Your task to perform on an android device: check the backup settings in the google photos Image 0: 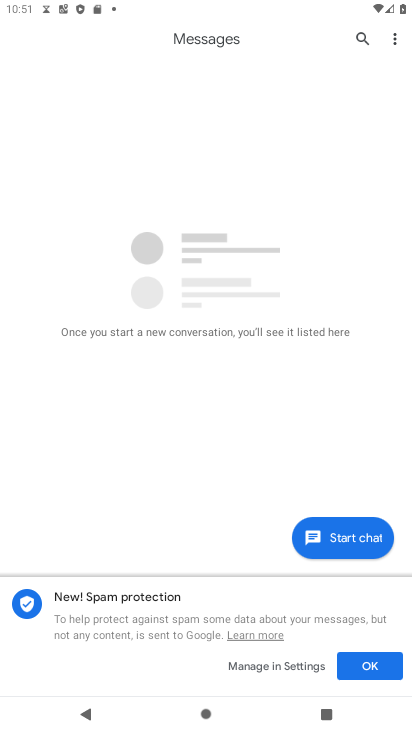
Step 0: press home button
Your task to perform on an android device: check the backup settings in the google photos Image 1: 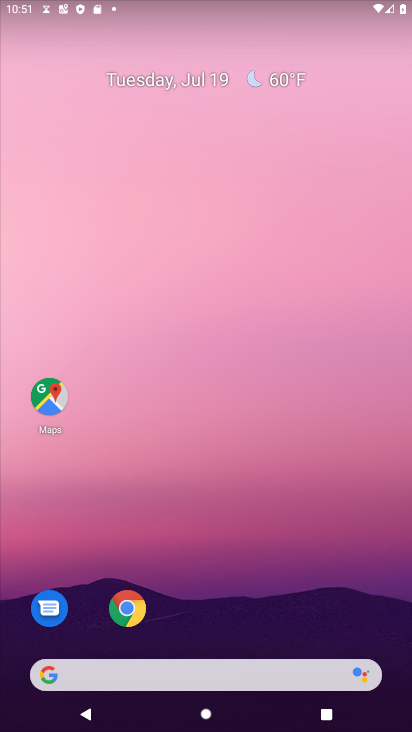
Step 1: drag from (258, 611) to (339, 172)
Your task to perform on an android device: check the backup settings in the google photos Image 2: 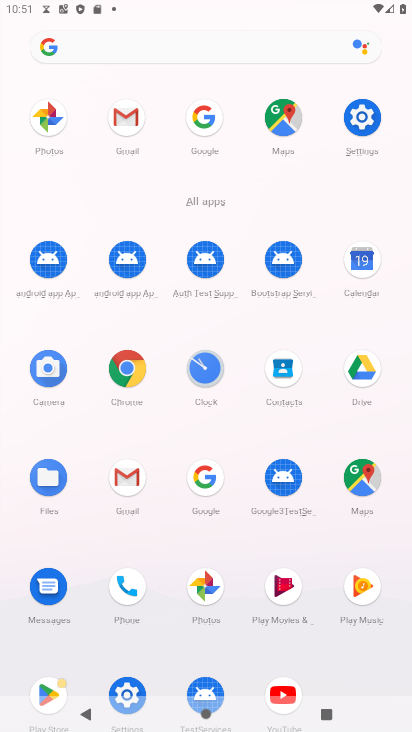
Step 2: click (216, 576)
Your task to perform on an android device: check the backup settings in the google photos Image 3: 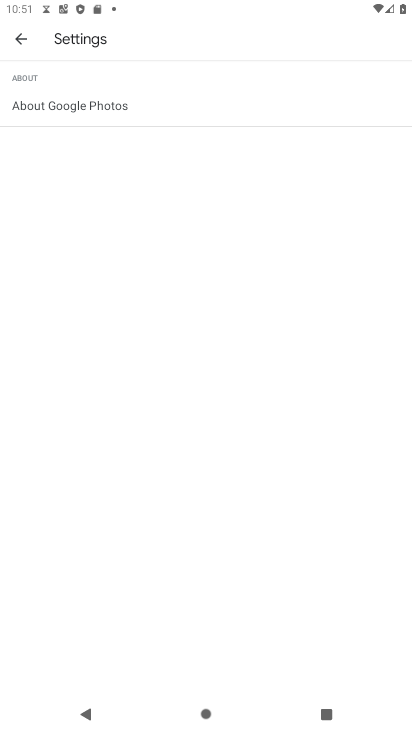
Step 3: click (20, 30)
Your task to perform on an android device: check the backup settings in the google photos Image 4: 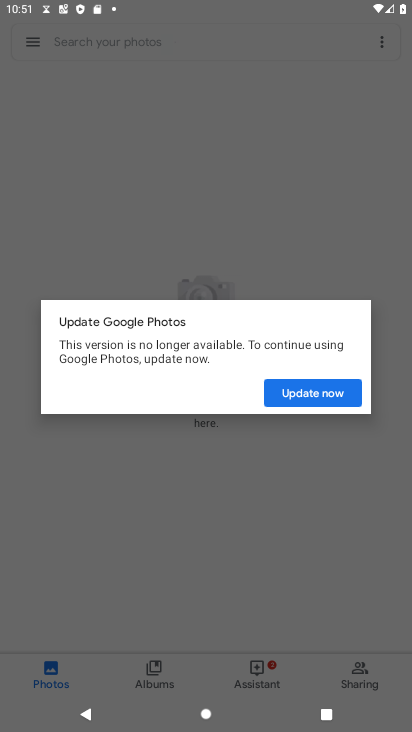
Step 4: click (318, 399)
Your task to perform on an android device: check the backup settings in the google photos Image 5: 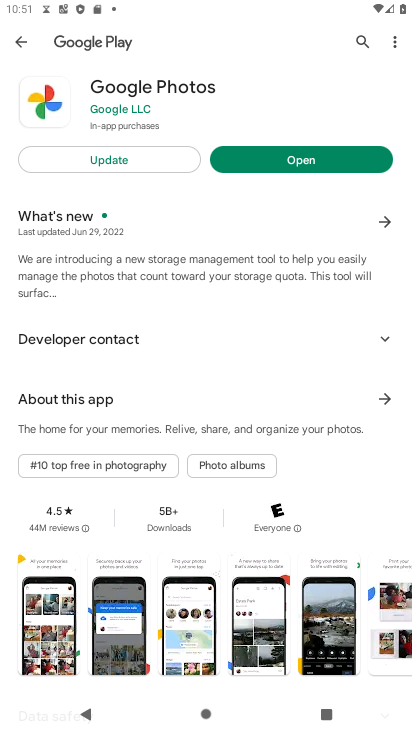
Step 5: click (127, 155)
Your task to perform on an android device: check the backup settings in the google photos Image 6: 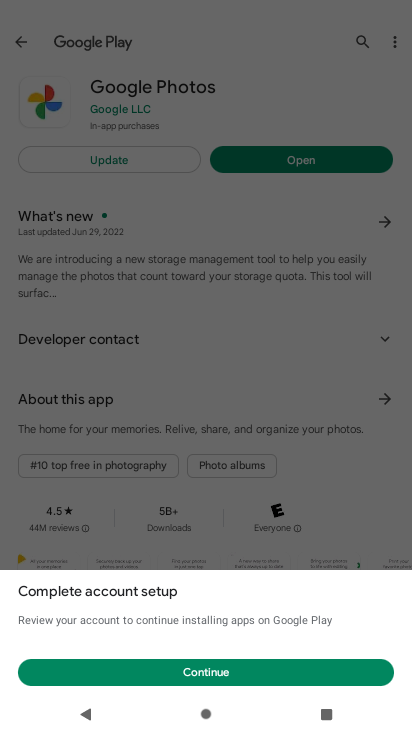
Step 6: click (130, 678)
Your task to perform on an android device: check the backup settings in the google photos Image 7: 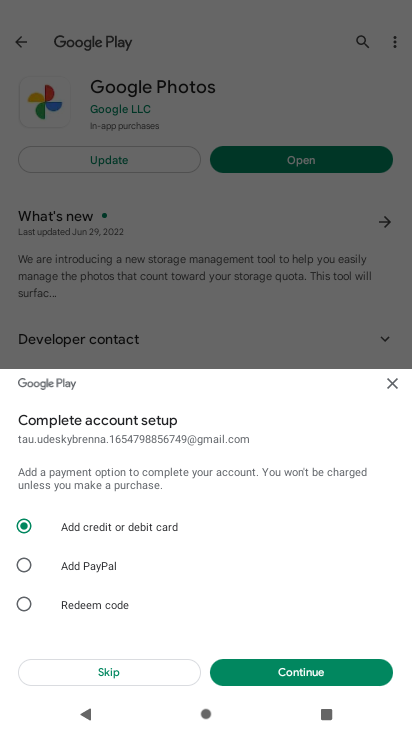
Step 7: click (119, 667)
Your task to perform on an android device: check the backup settings in the google photos Image 8: 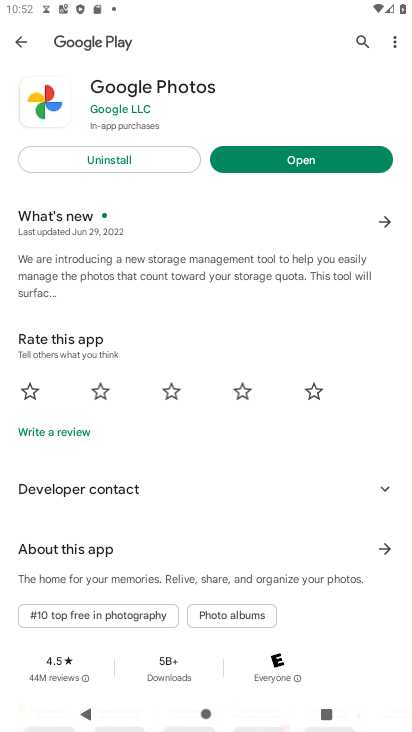
Step 8: click (256, 151)
Your task to perform on an android device: check the backup settings in the google photos Image 9: 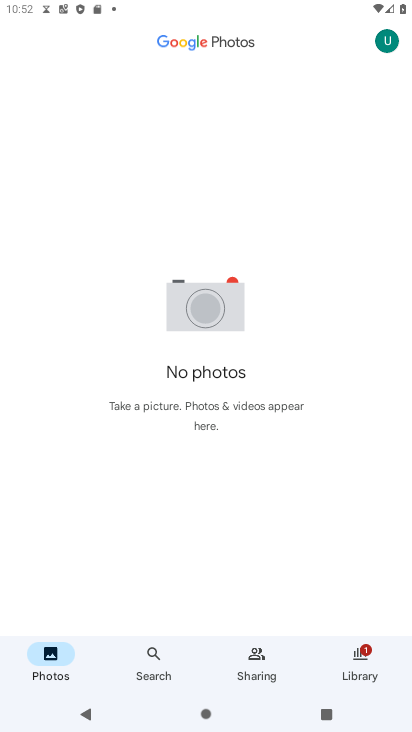
Step 9: click (384, 42)
Your task to perform on an android device: check the backup settings in the google photos Image 10: 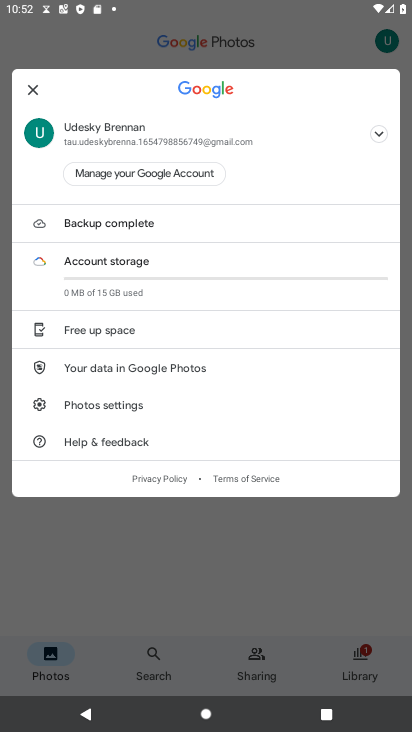
Step 10: click (114, 412)
Your task to perform on an android device: check the backup settings in the google photos Image 11: 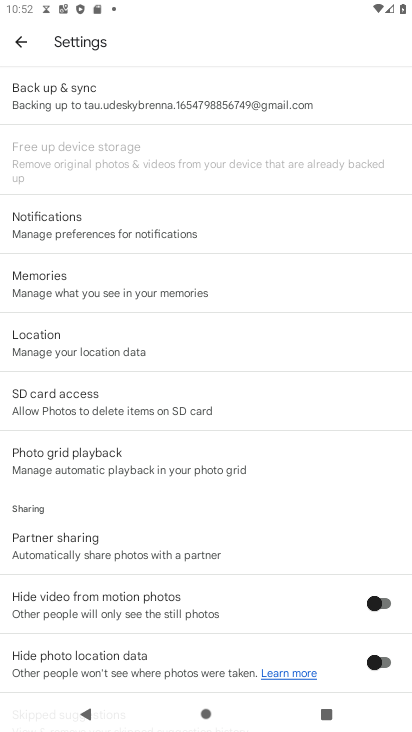
Step 11: click (62, 104)
Your task to perform on an android device: check the backup settings in the google photos Image 12: 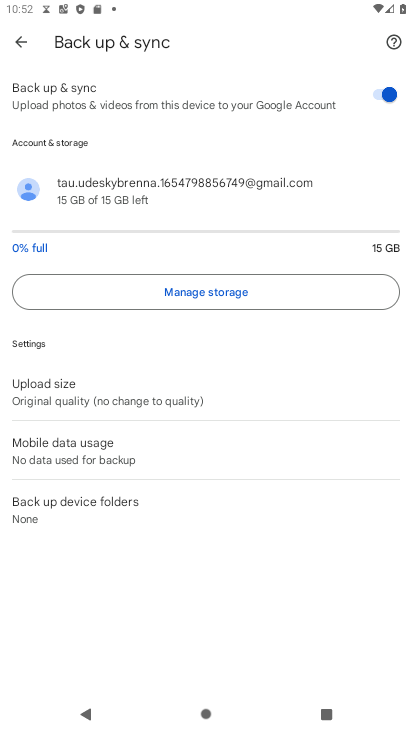
Step 12: task complete